Your task to perform on an android device: What's the weather going to be this weekend? Image 0: 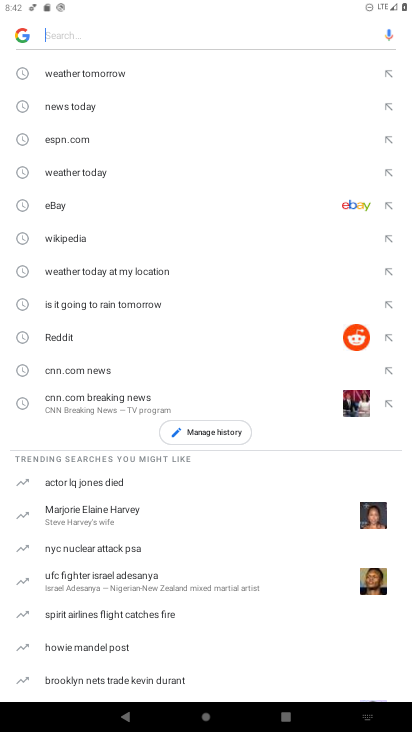
Step 0: type "weekend weather"
Your task to perform on an android device: What's the weather going to be this weekend? Image 1: 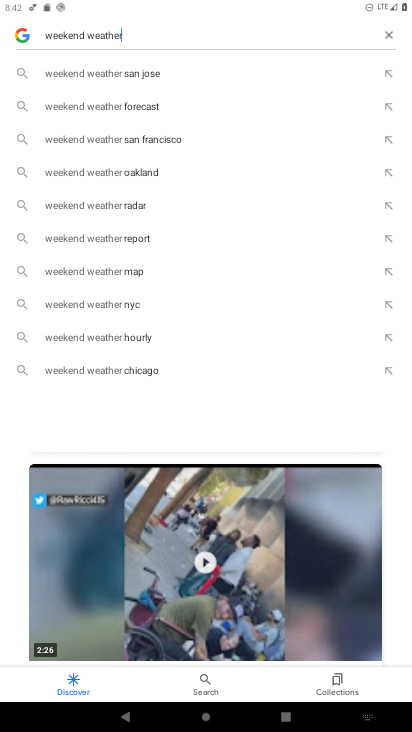
Step 1: click (149, 102)
Your task to perform on an android device: What's the weather going to be this weekend? Image 2: 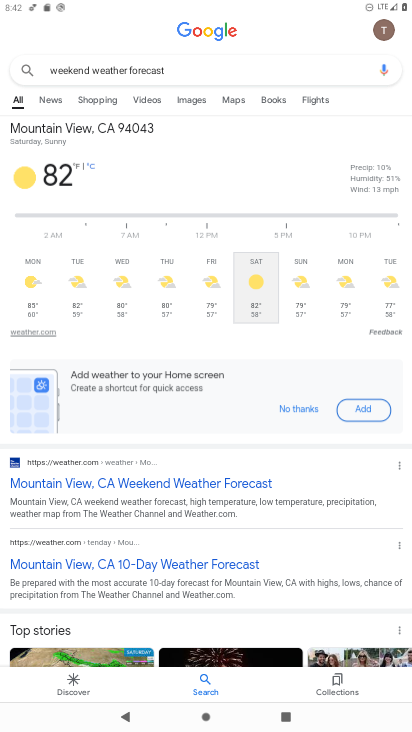
Step 2: task complete